Your task to perform on an android device: Open Android settings Image 0: 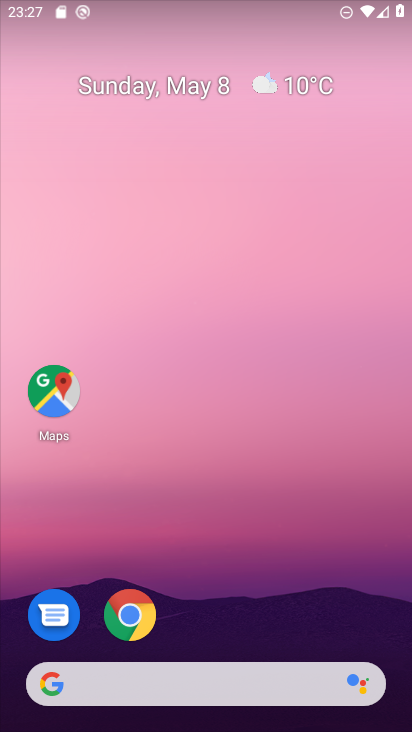
Step 0: drag from (277, 572) to (275, 17)
Your task to perform on an android device: Open Android settings Image 1: 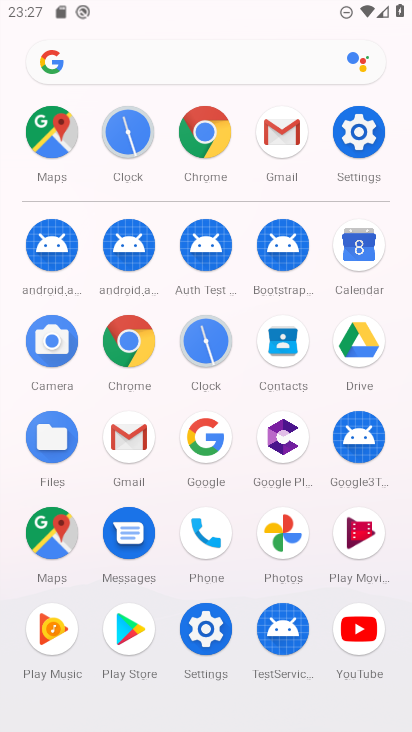
Step 1: click (200, 615)
Your task to perform on an android device: Open Android settings Image 2: 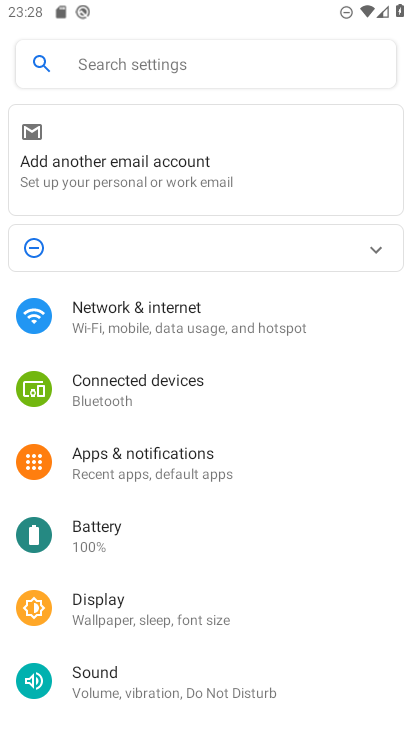
Step 2: task complete